Your task to perform on an android device: set an alarm Image 0: 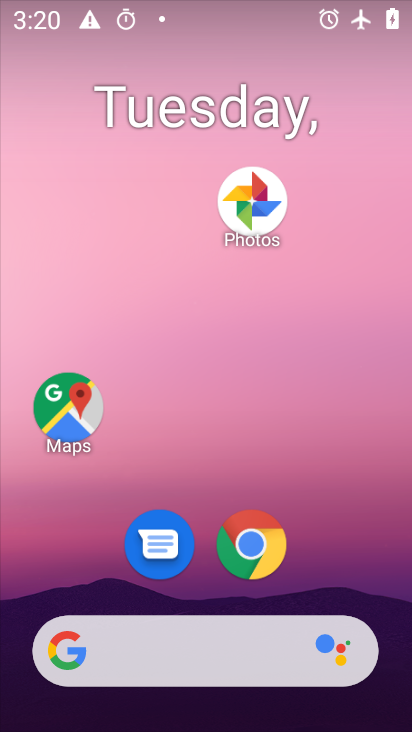
Step 0: drag from (354, 482) to (347, 15)
Your task to perform on an android device: set an alarm Image 1: 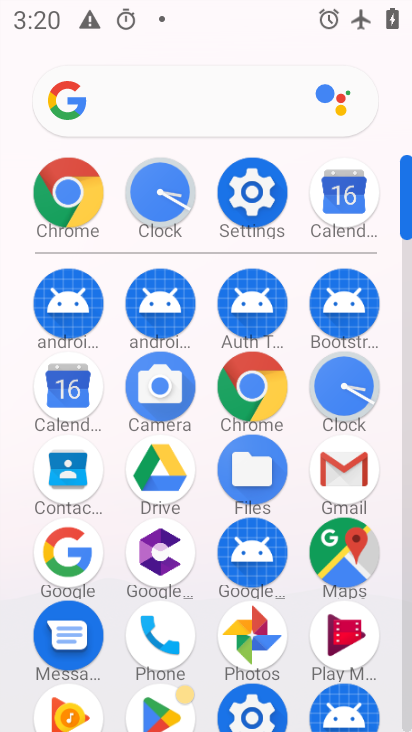
Step 1: click (337, 382)
Your task to perform on an android device: set an alarm Image 2: 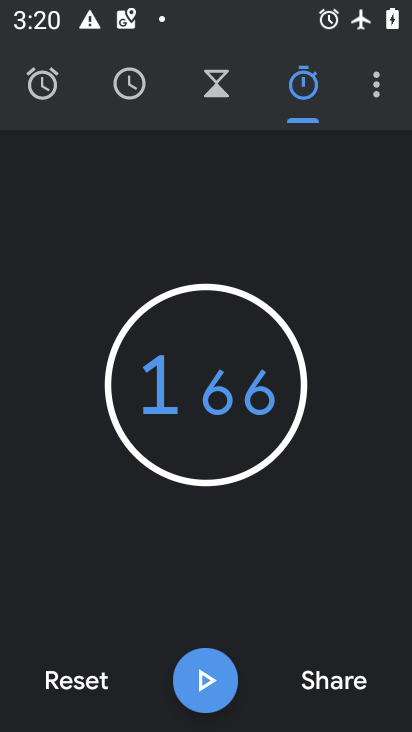
Step 2: click (41, 79)
Your task to perform on an android device: set an alarm Image 3: 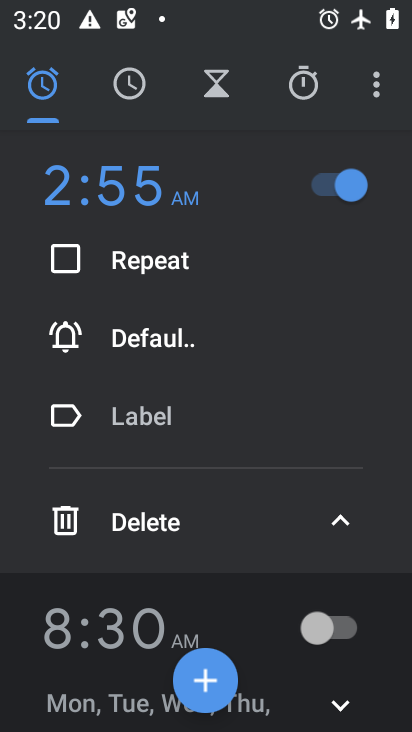
Step 3: click (205, 677)
Your task to perform on an android device: set an alarm Image 4: 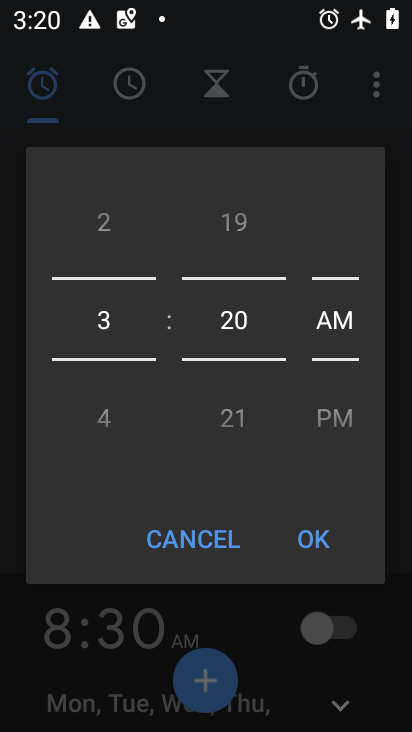
Step 4: click (322, 537)
Your task to perform on an android device: set an alarm Image 5: 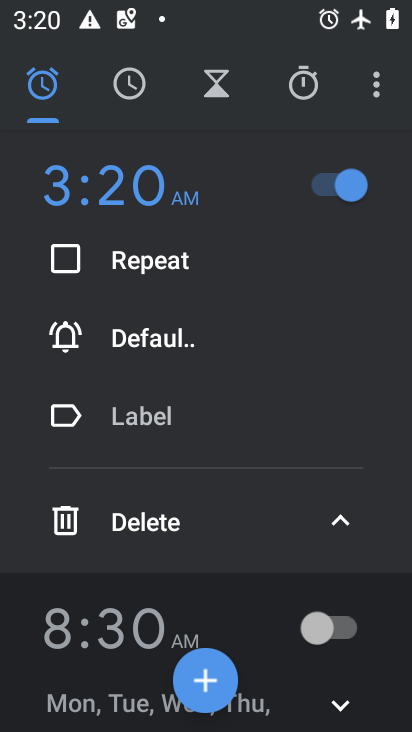
Step 5: task complete